Your task to perform on an android device: View the shopping cart on bestbuy.com. Image 0: 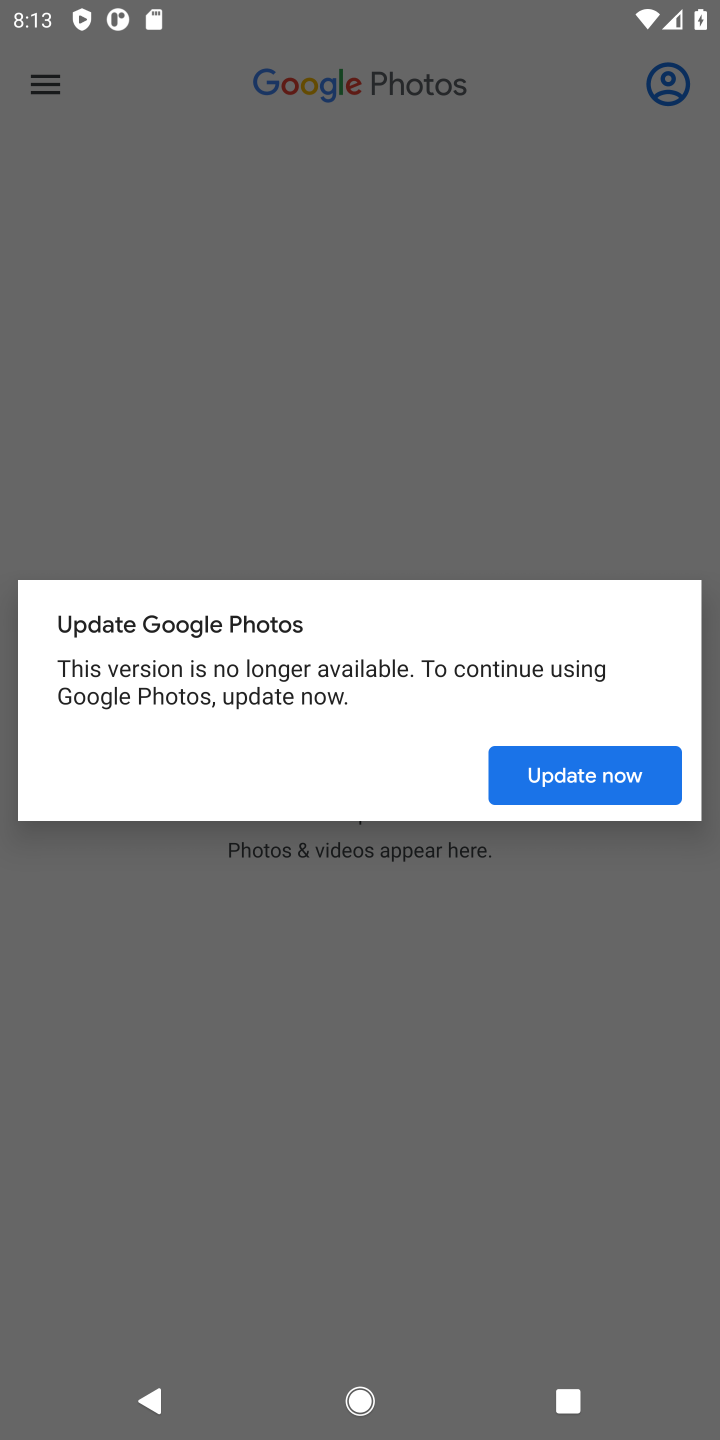
Step 0: press home button
Your task to perform on an android device: View the shopping cart on bestbuy.com. Image 1: 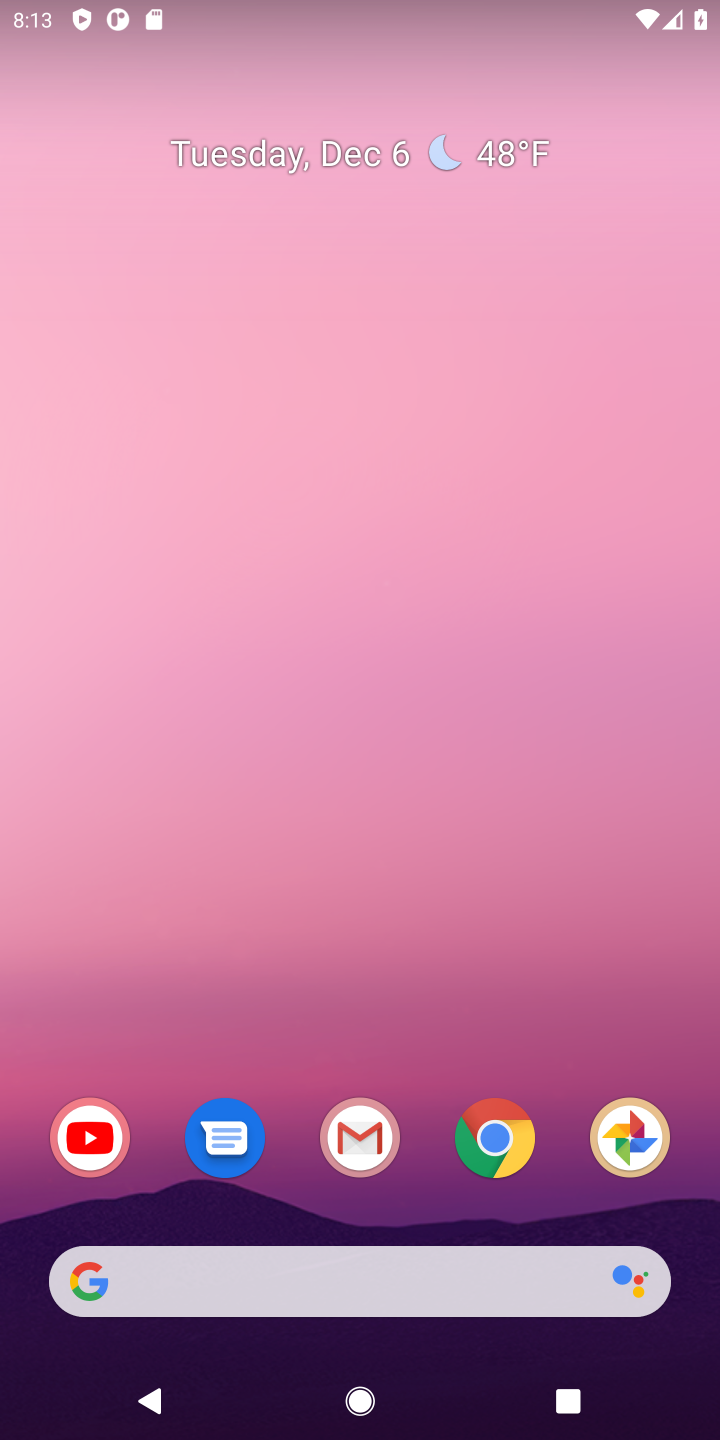
Step 1: click (484, 1131)
Your task to perform on an android device: View the shopping cart on bestbuy.com. Image 2: 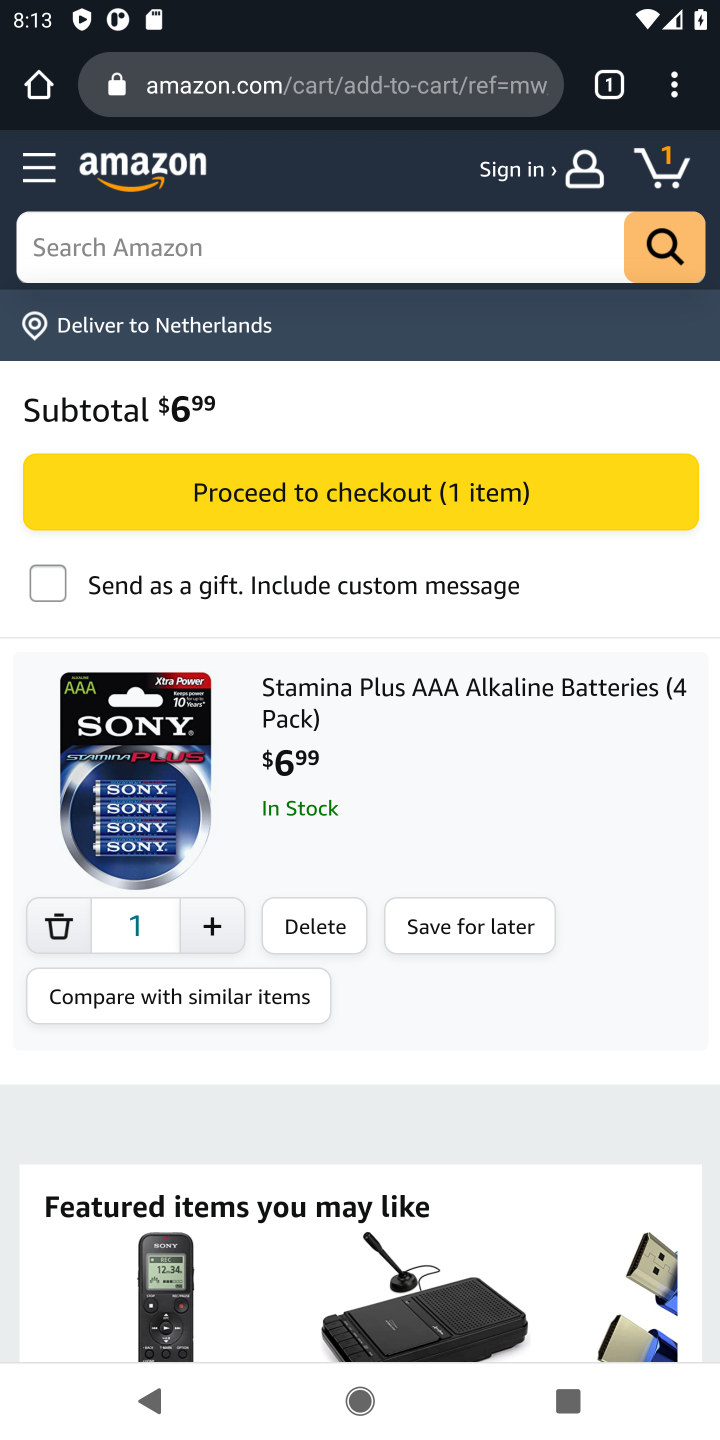
Step 2: click (305, 100)
Your task to perform on an android device: View the shopping cart on bestbuy.com. Image 3: 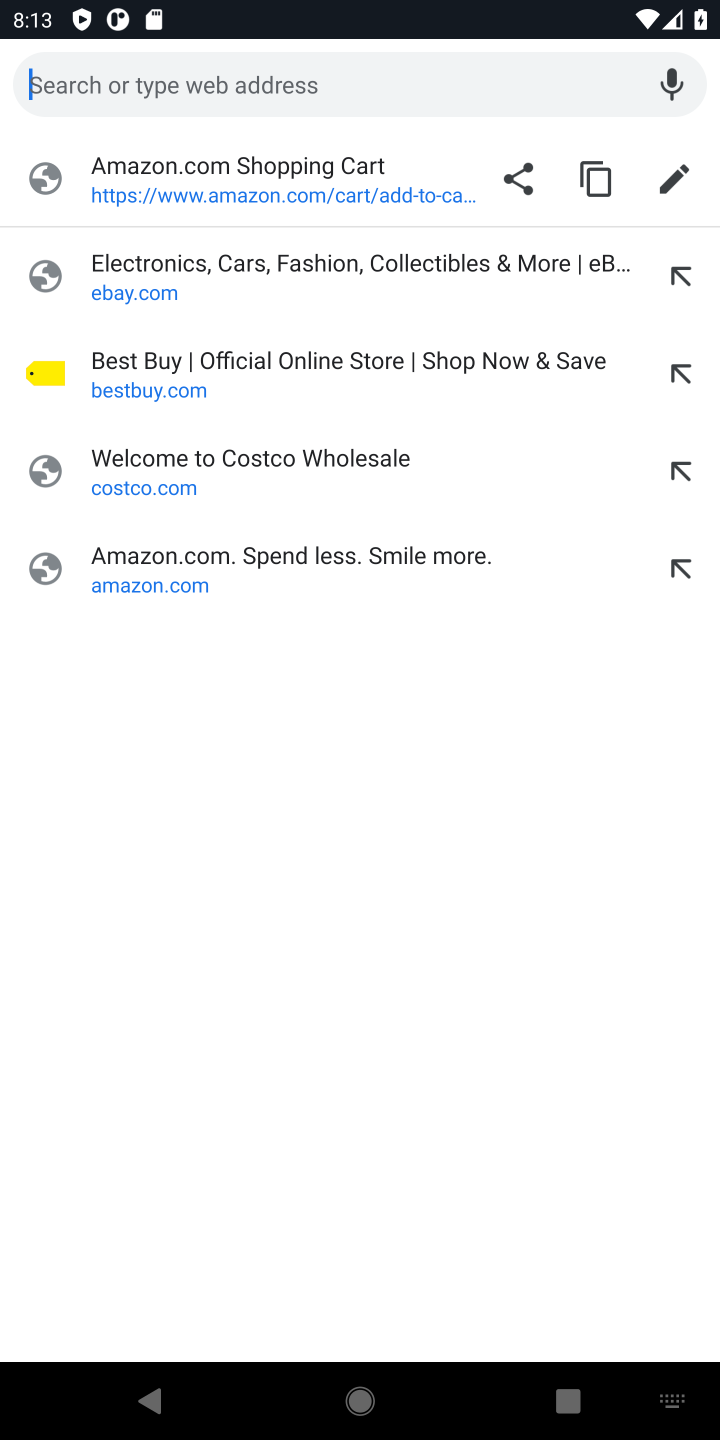
Step 3: click (138, 369)
Your task to perform on an android device: View the shopping cart on bestbuy.com. Image 4: 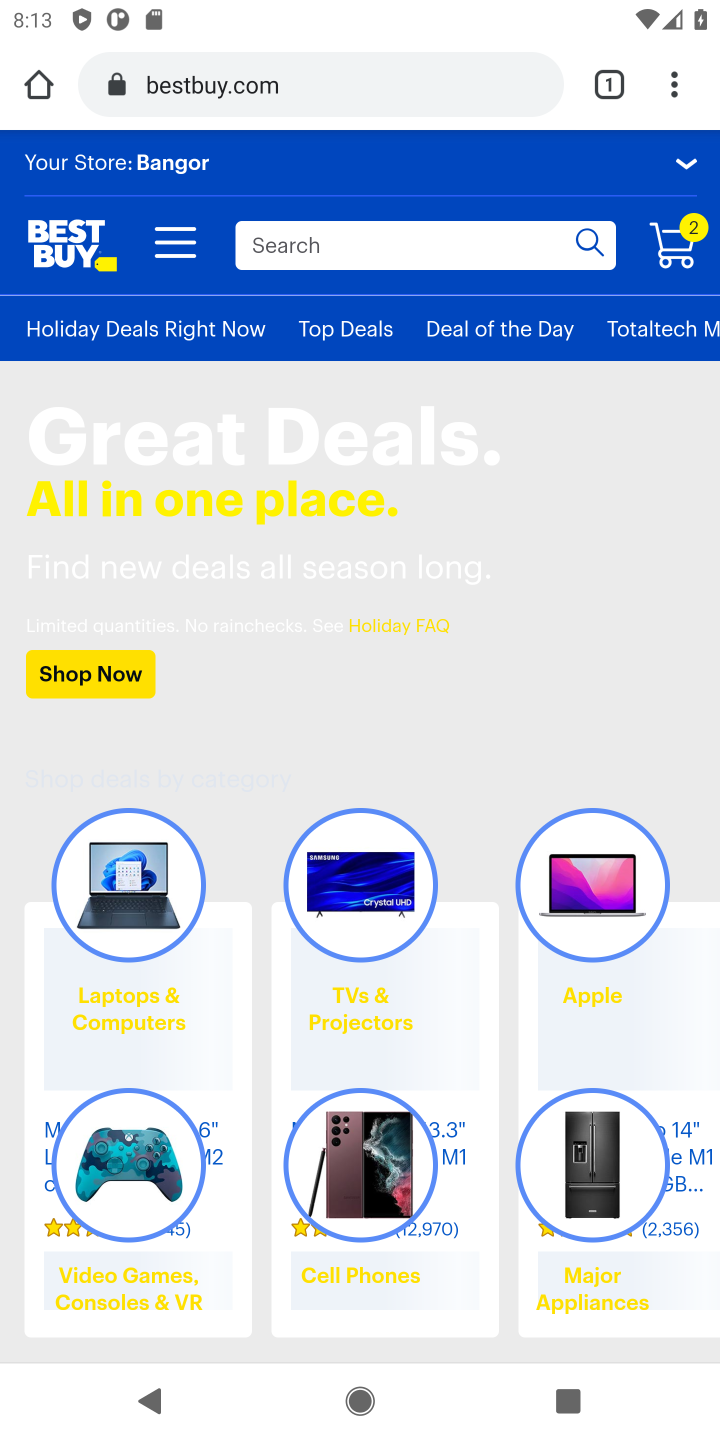
Step 4: click (685, 251)
Your task to perform on an android device: View the shopping cart on bestbuy.com. Image 5: 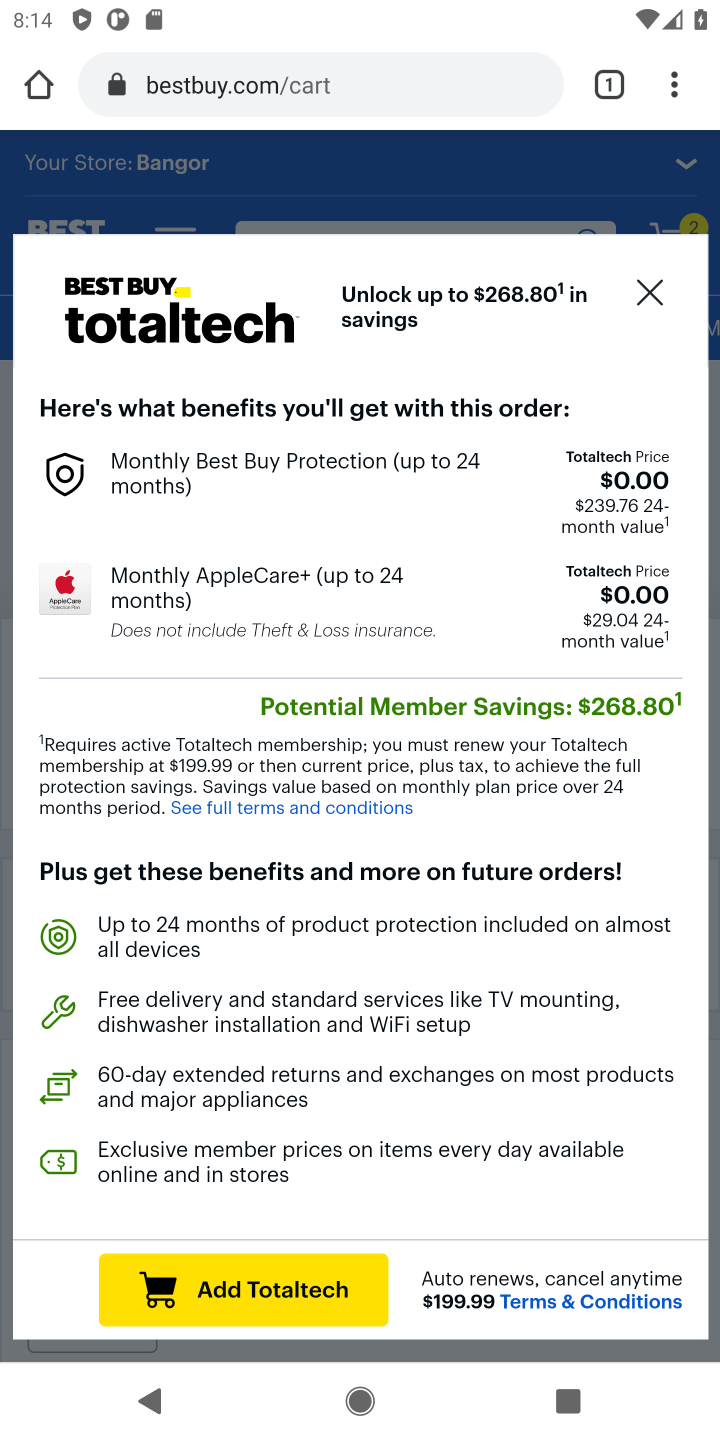
Step 5: click (656, 286)
Your task to perform on an android device: View the shopping cart on bestbuy.com. Image 6: 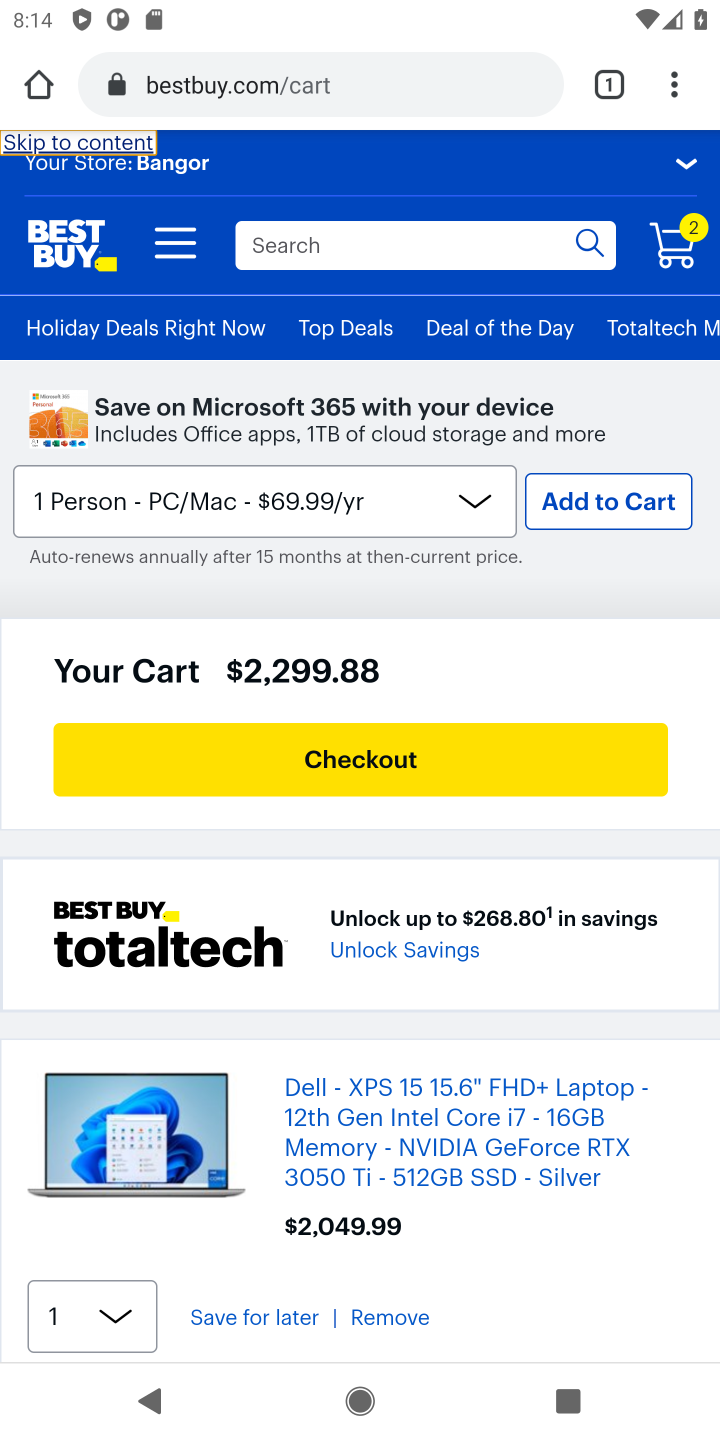
Step 6: task complete